Your task to perform on an android device: turn on data saver in the chrome app Image 0: 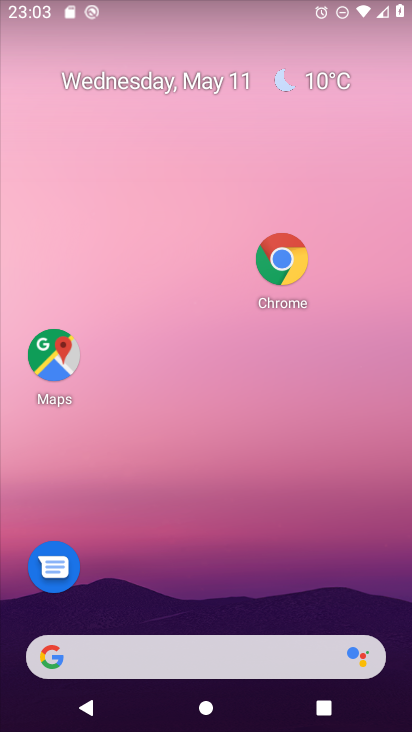
Step 0: drag from (172, 646) to (254, 171)
Your task to perform on an android device: turn on data saver in the chrome app Image 1: 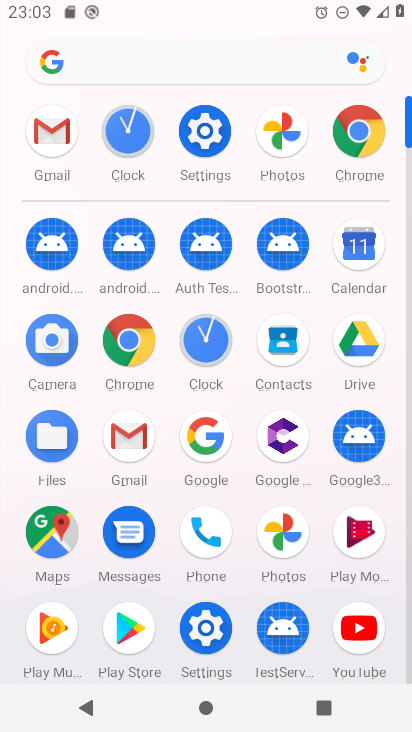
Step 1: click (355, 143)
Your task to perform on an android device: turn on data saver in the chrome app Image 2: 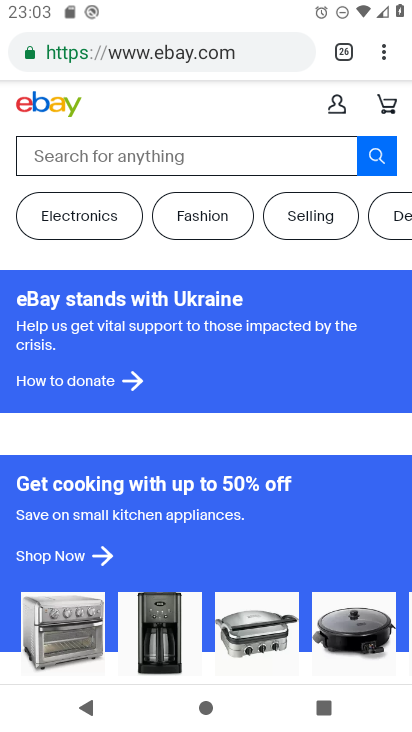
Step 2: drag from (384, 53) to (239, 611)
Your task to perform on an android device: turn on data saver in the chrome app Image 3: 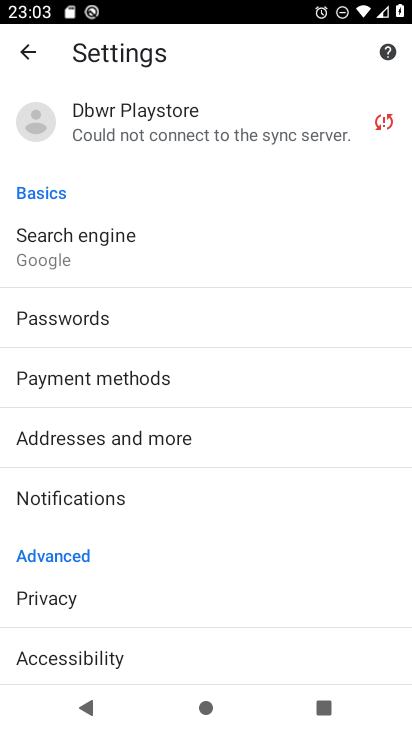
Step 3: drag from (160, 615) to (238, 289)
Your task to perform on an android device: turn on data saver in the chrome app Image 4: 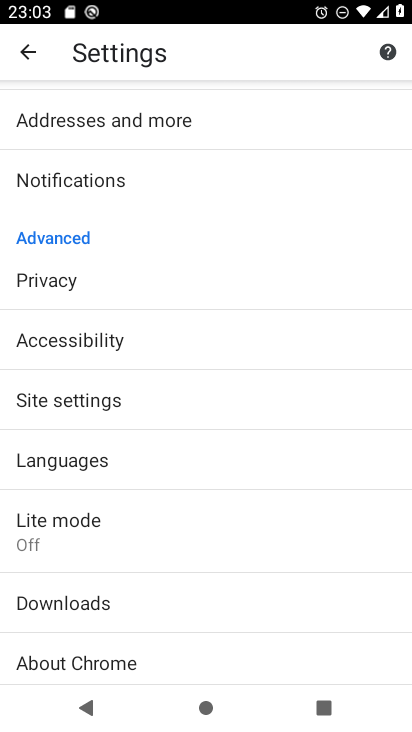
Step 4: click (72, 536)
Your task to perform on an android device: turn on data saver in the chrome app Image 5: 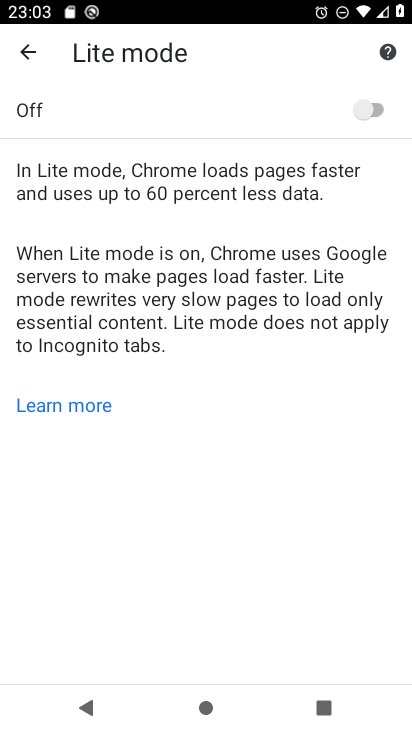
Step 5: click (372, 112)
Your task to perform on an android device: turn on data saver in the chrome app Image 6: 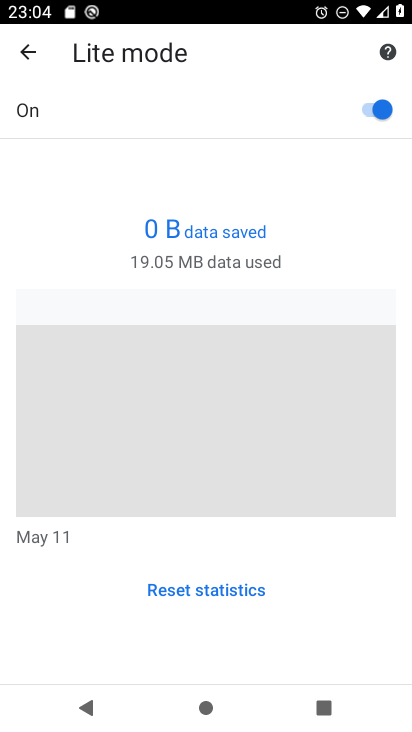
Step 6: task complete